Your task to perform on an android device: turn off sleep mode Image 0: 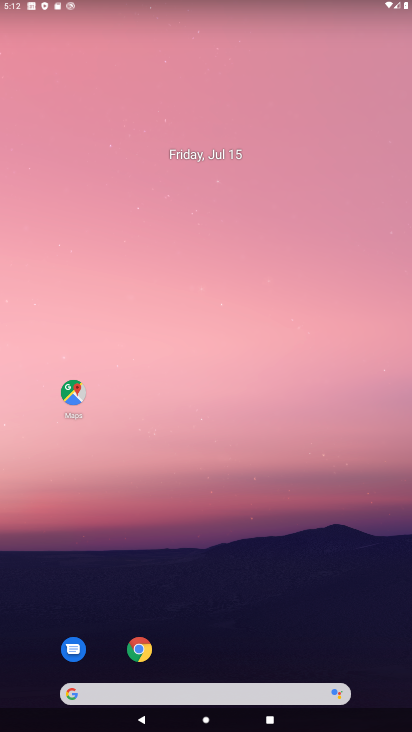
Step 0: drag from (213, 690) to (236, 148)
Your task to perform on an android device: turn off sleep mode Image 1: 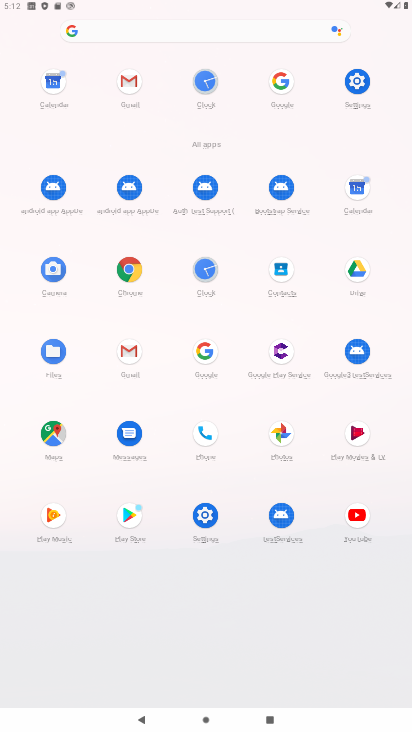
Step 1: click (205, 514)
Your task to perform on an android device: turn off sleep mode Image 2: 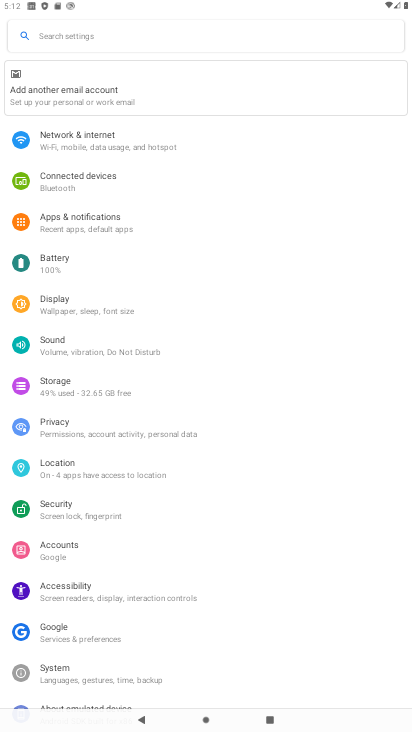
Step 2: click (90, 217)
Your task to perform on an android device: turn off sleep mode Image 3: 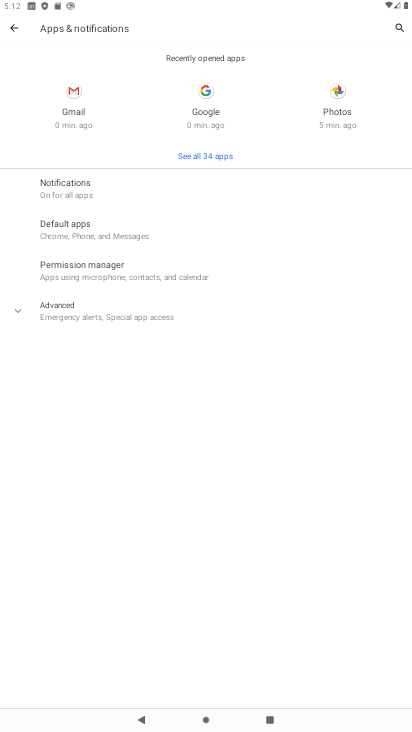
Step 3: click (74, 309)
Your task to perform on an android device: turn off sleep mode Image 4: 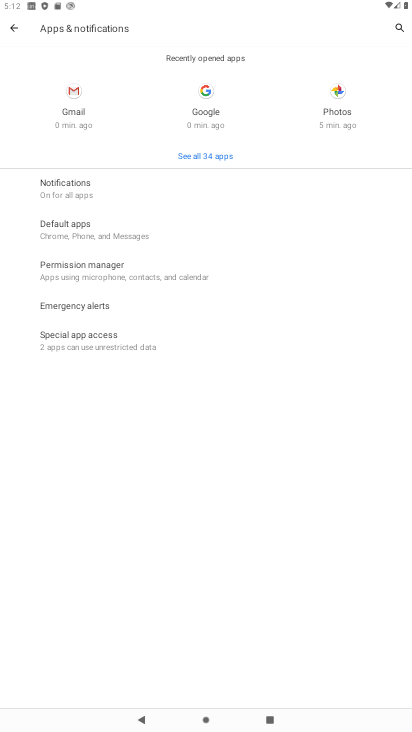
Step 4: click (70, 195)
Your task to perform on an android device: turn off sleep mode Image 5: 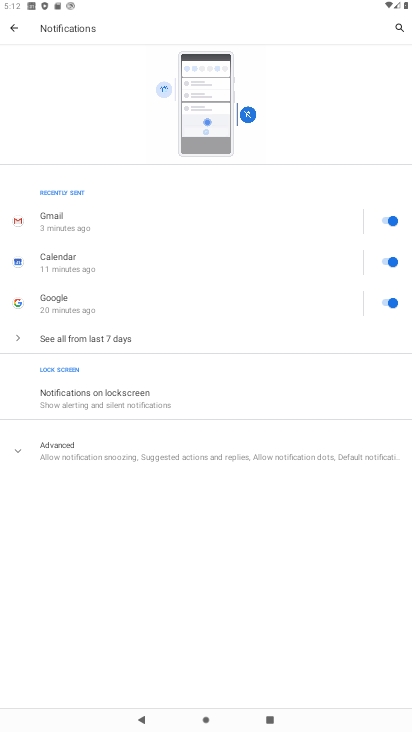
Step 5: click (122, 456)
Your task to perform on an android device: turn off sleep mode Image 6: 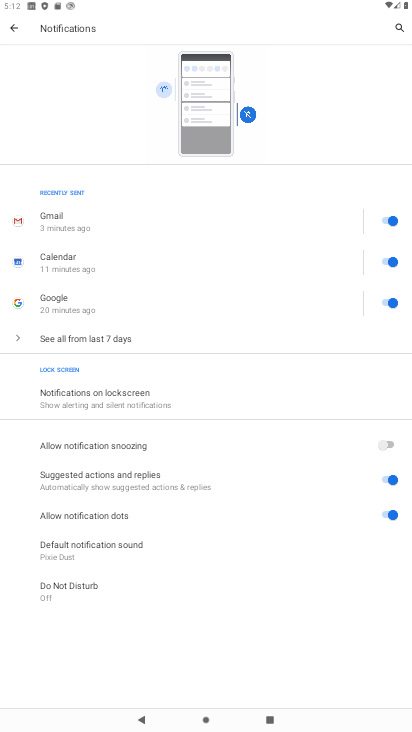
Step 6: task complete